Your task to perform on an android device: delete browsing data in the chrome app Image 0: 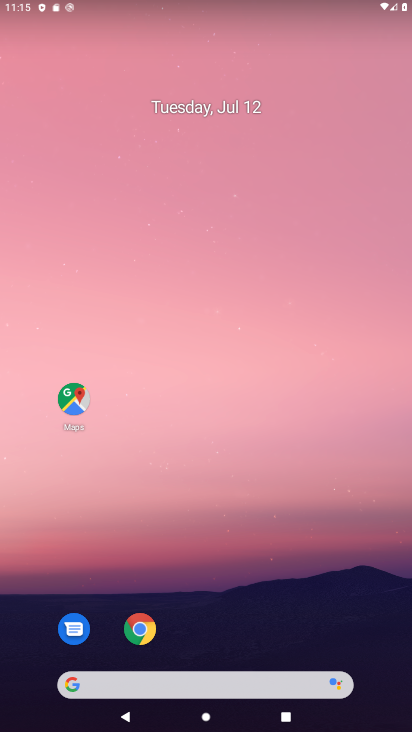
Step 0: click (131, 636)
Your task to perform on an android device: delete browsing data in the chrome app Image 1: 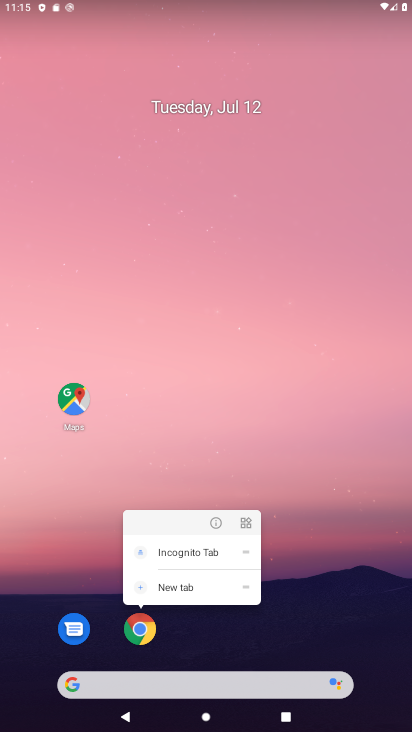
Step 1: click (131, 636)
Your task to perform on an android device: delete browsing data in the chrome app Image 2: 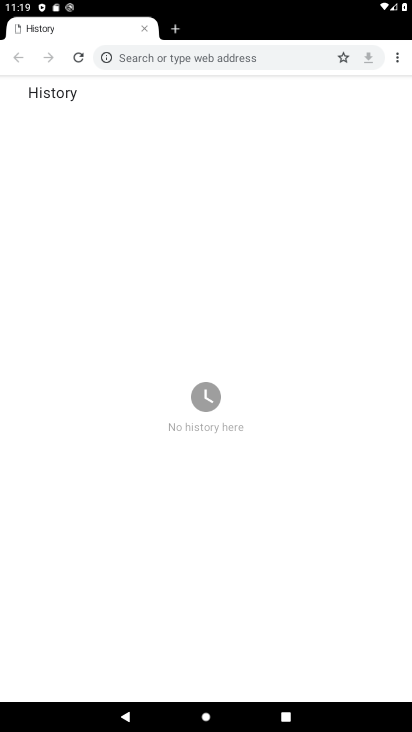
Step 2: task complete